Your task to perform on an android device: open a new tab in the chrome app Image 0: 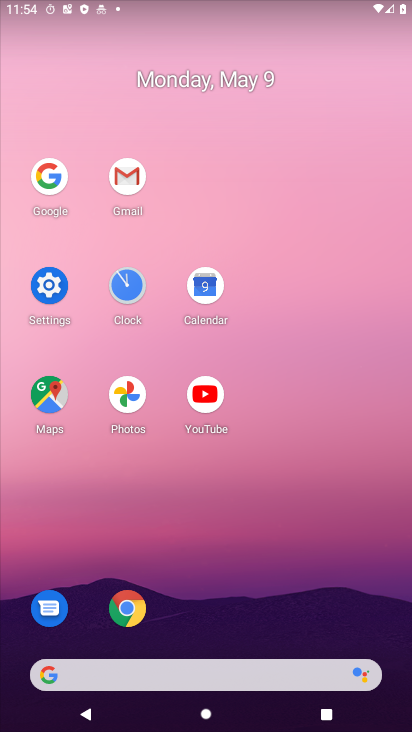
Step 0: click (138, 615)
Your task to perform on an android device: open a new tab in the chrome app Image 1: 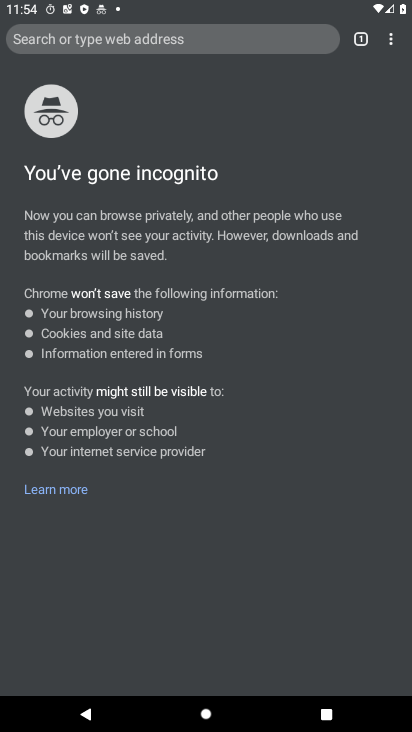
Step 1: click (359, 39)
Your task to perform on an android device: open a new tab in the chrome app Image 2: 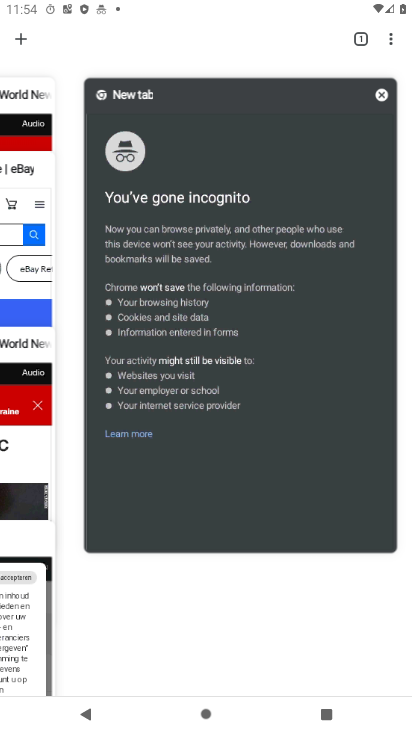
Step 2: click (23, 40)
Your task to perform on an android device: open a new tab in the chrome app Image 3: 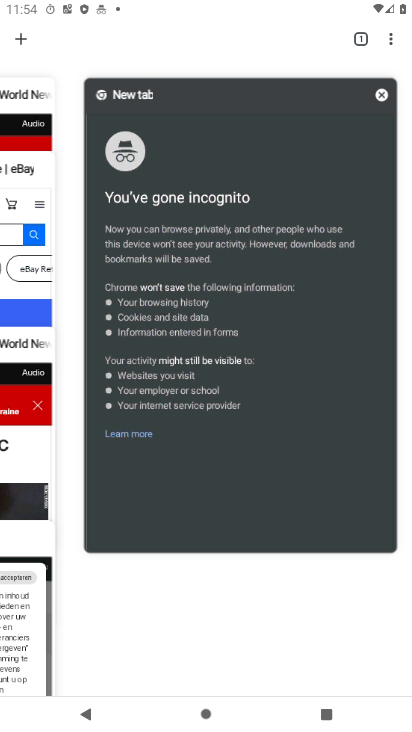
Step 3: click (22, 39)
Your task to perform on an android device: open a new tab in the chrome app Image 4: 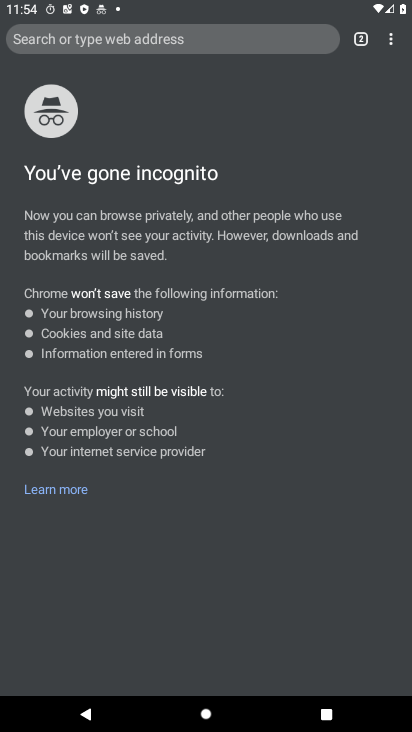
Step 4: task complete